Your task to perform on an android device: Open eBay Image 0: 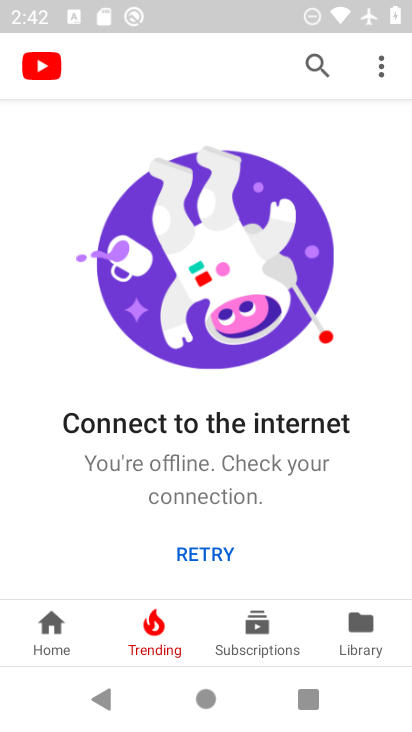
Step 0: press home button
Your task to perform on an android device: Open eBay Image 1: 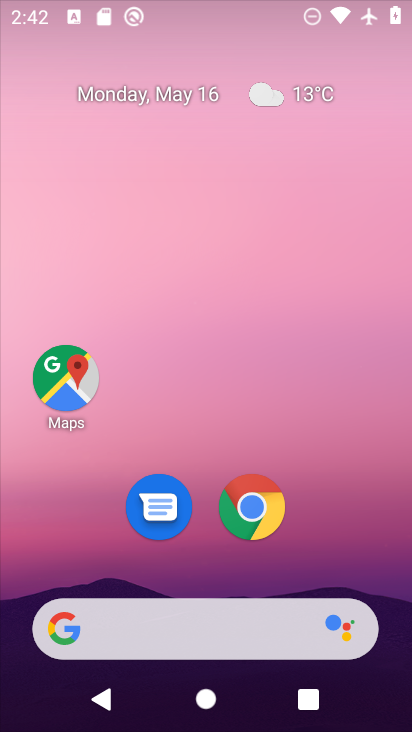
Step 1: drag from (363, 499) to (305, 151)
Your task to perform on an android device: Open eBay Image 2: 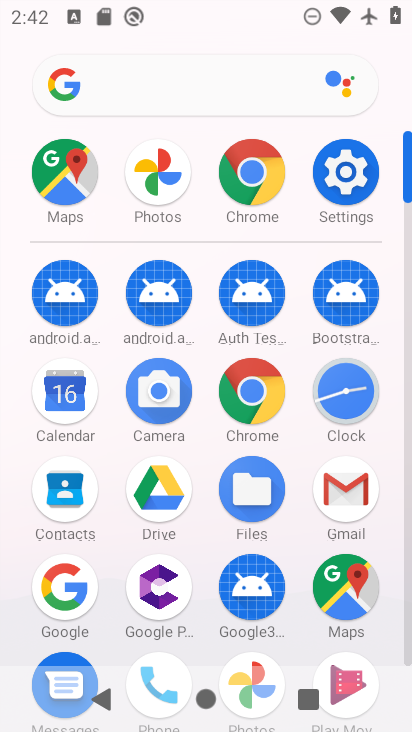
Step 2: click (243, 398)
Your task to perform on an android device: Open eBay Image 3: 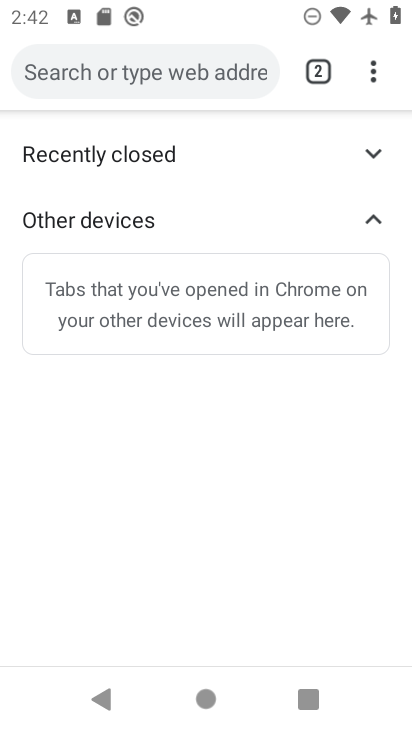
Step 3: click (319, 80)
Your task to perform on an android device: Open eBay Image 4: 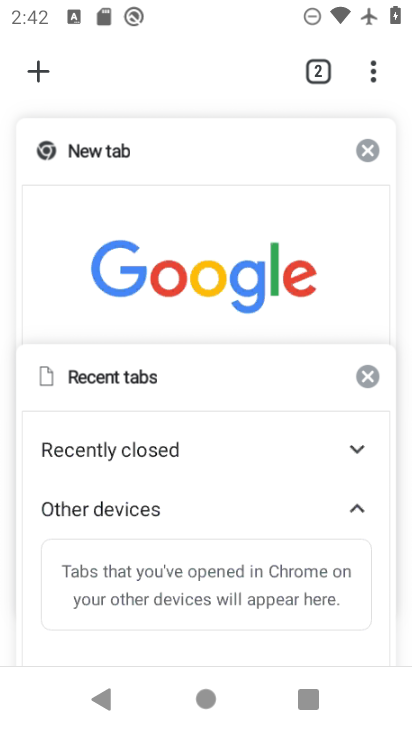
Step 4: click (151, 218)
Your task to perform on an android device: Open eBay Image 5: 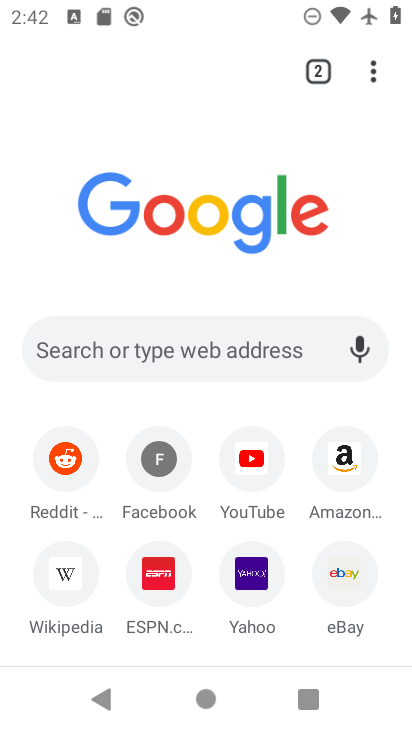
Step 5: click (359, 587)
Your task to perform on an android device: Open eBay Image 6: 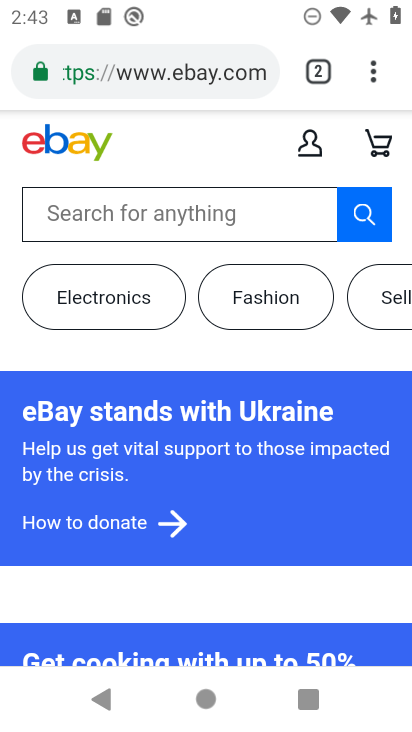
Step 6: task complete